Your task to perform on an android device: Check the news Image 0: 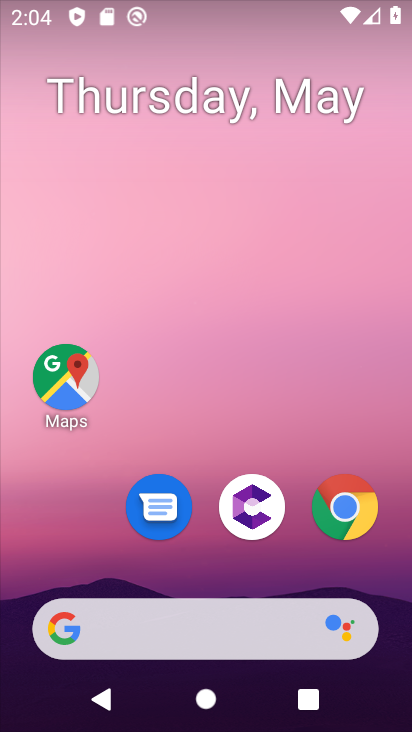
Step 0: click (78, 634)
Your task to perform on an android device: Check the news Image 1: 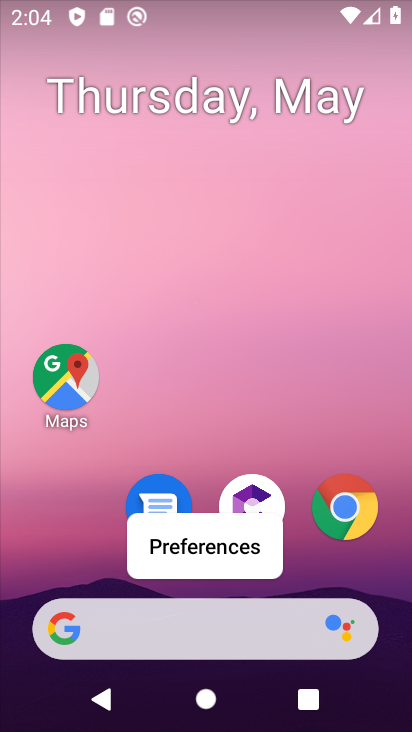
Step 1: click (76, 629)
Your task to perform on an android device: Check the news Image 2: 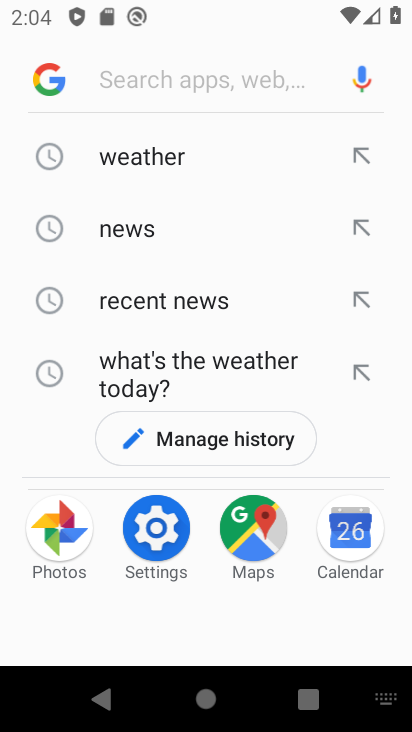
Step 2: click (131, 231)
Your task to perform on an android device: Check the news Image 3: 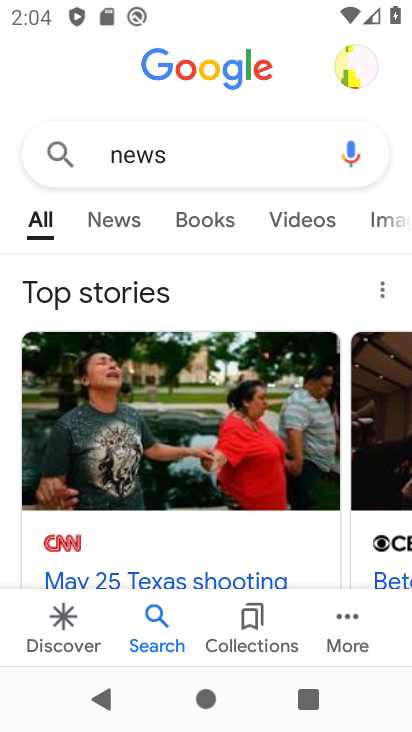
Step 3: task complete